Your task to perform on an android device: toggle notifications settings in the gmail app Image 0: 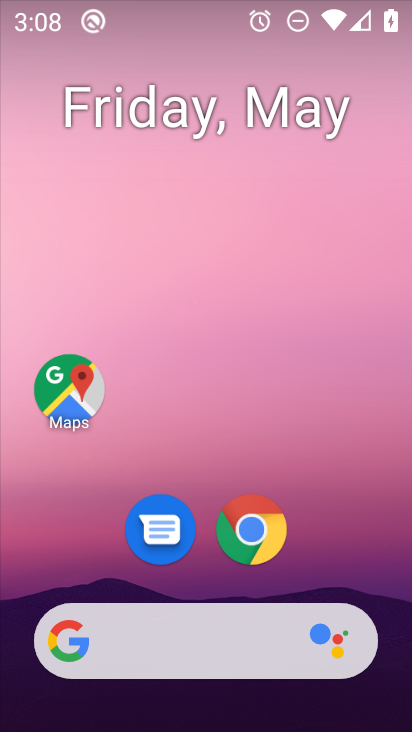
Step 0: drag from (394, 690) to (360, 302)
Your task to perform on an android device: toggle notifications settings in the gmail app Image 1: 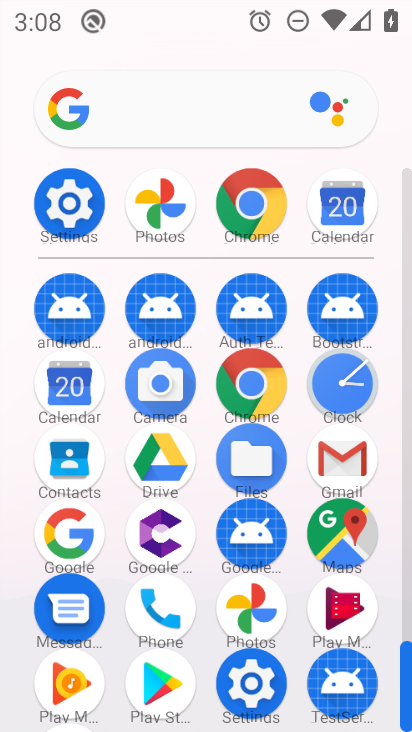
Step 1: click (334, 463)
Your task to perform on an android device: toggle notifications settings in the gmail app Image 2: 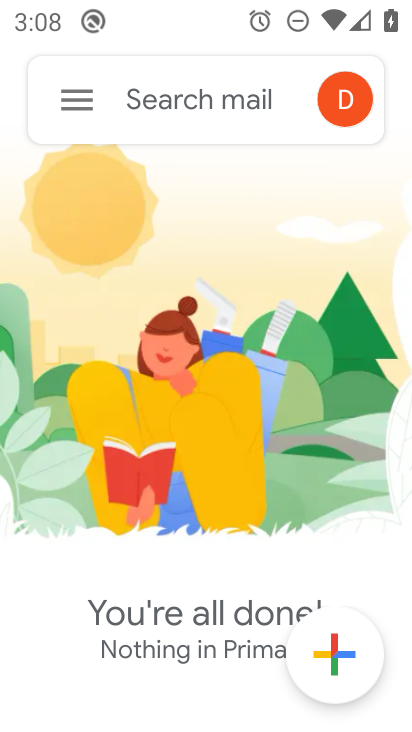
Step 2: click (82, 103)
Your task to perform on an android device: toggle notifications settings in the gmail app Image 3: 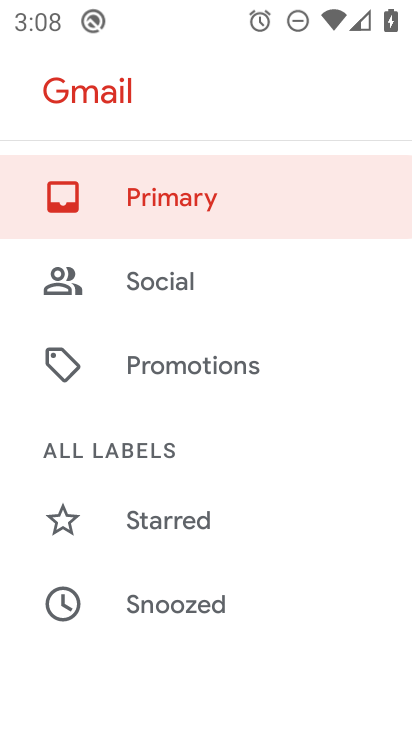
Step 3: drag from (284, 629) to (301, 326)
Your task to perform on an android device: toggle notifications settings in the gmail app Image 4: 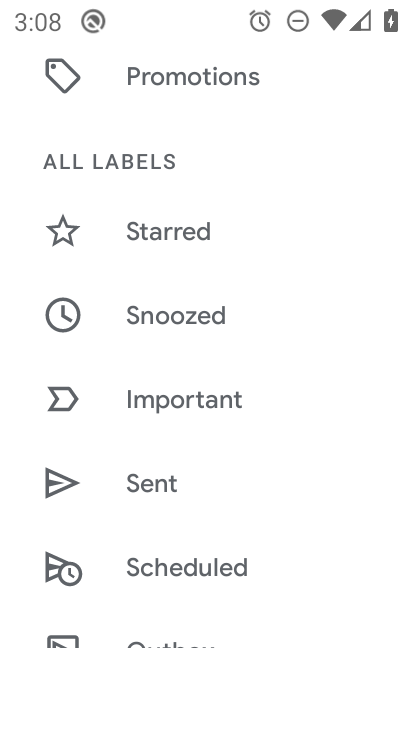
Step 4: drag from (308, 621) to (309, 376)
Your task to perform on an android device: toggle notifications settings in the gmail app Image 5: 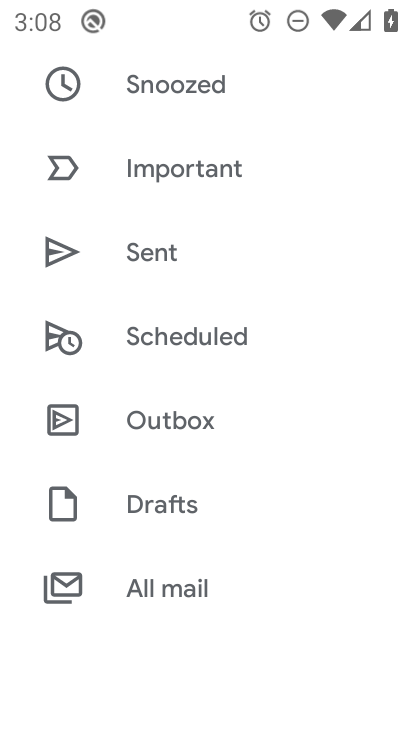
Step 5: drag from (287, 607) to (273, 321)
Your task to perform on an android device: toggle notifications settings in the gmail app Image 6: 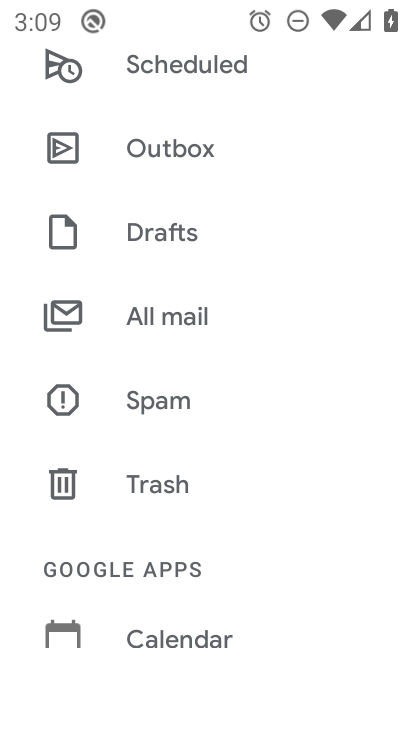
Step 6: drag from (296, 653) to (291, 344)
Your task to perform on an android device: toggle notifications settings in the gmail app Image 7: 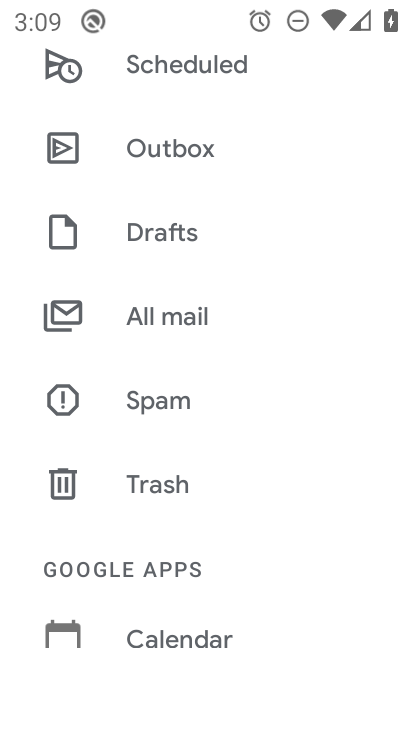
Step 7: drag from (283, 609) to (295, 288)
Your task to perform on an android device: toggle notifications settings in the gmail app Image 8: 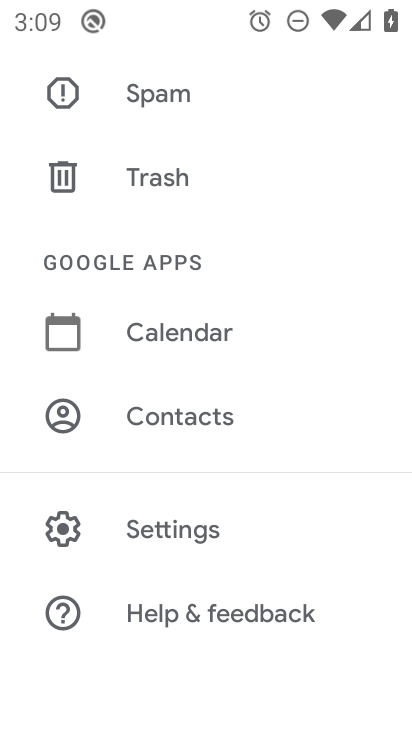
Step 8: click (168, 530)
Your task to perform on an android device: toggle notifications settings in the gmail app Image 9: 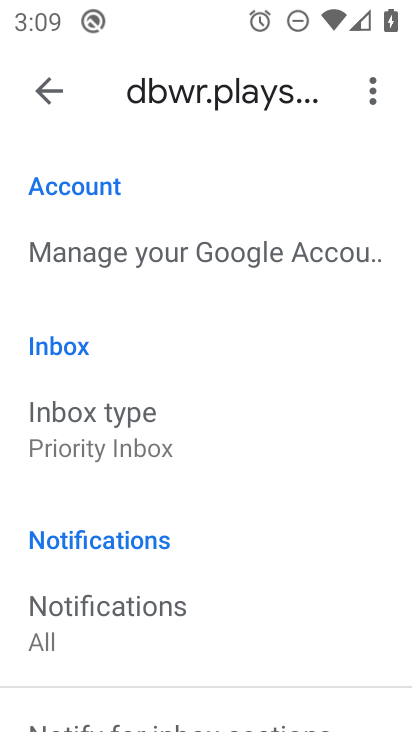
Step 9: click (47, 88)
Your task to perform on an android device: toggle notifications settings in the gmail app Image 10: 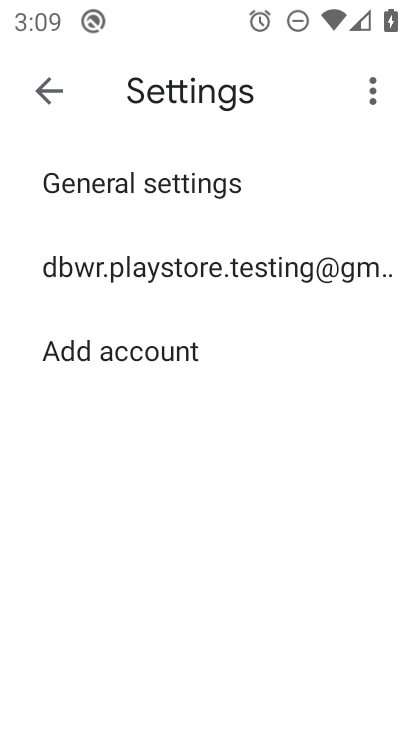
Step 10: click (81, 180)
Your task to perform on an android device: toggle notifications settings in the gmail app Image 11: 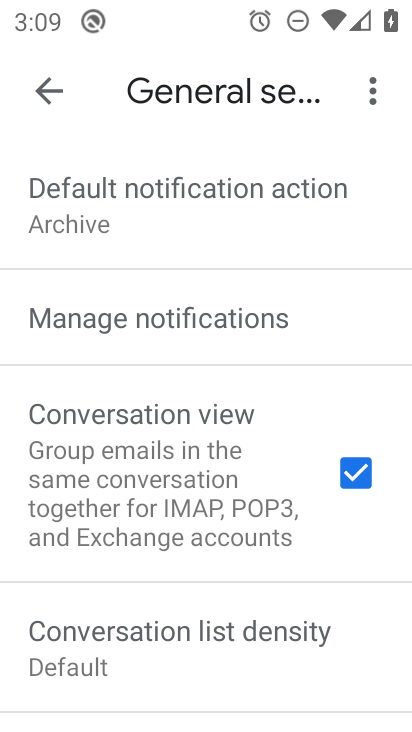
Step 11: click (167, 317)
Your task to perform on an android device: toggle notifications settings in the gmail app Image 12: 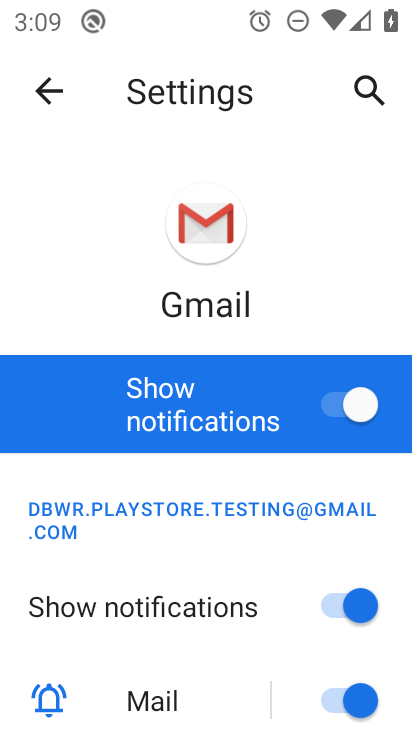
Step 12: drag from (222, 700) to (219, 413)
Your task to perform on an android device: toggle notifications settings in the gmail app Image 13: 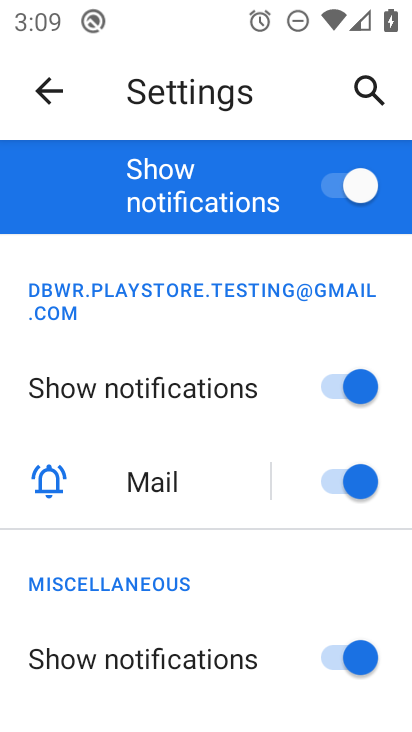
Step 13: drag from (241, 640) to (209, 364)
Your task to perform on an android device: toggle notifications settings in the gmail app Image 14: 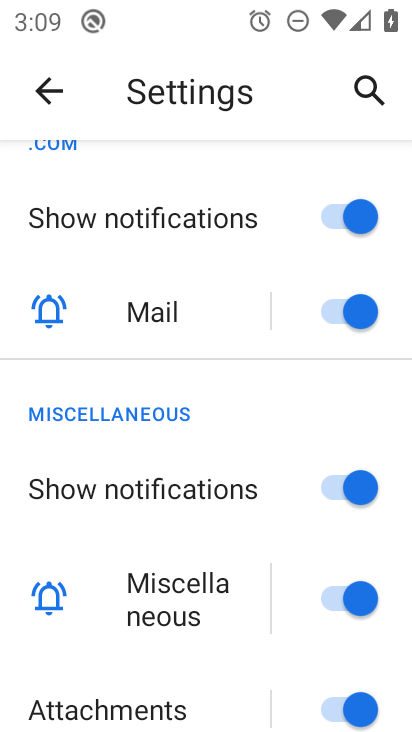
Step 14: drag from (229, 694) to (210, 402)
Your task to perform on an android device: toggle notifications settings in the gmail app Image 15: 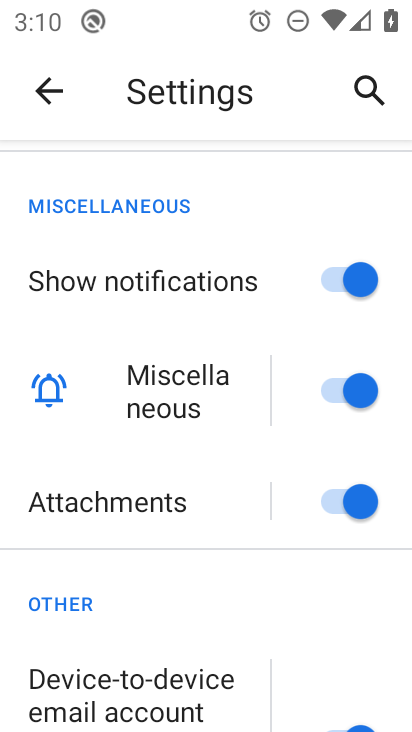
Step 15: click (325, 282)
Your task to perform on an android device: toggle notifications settings in the gmail app Image 16: 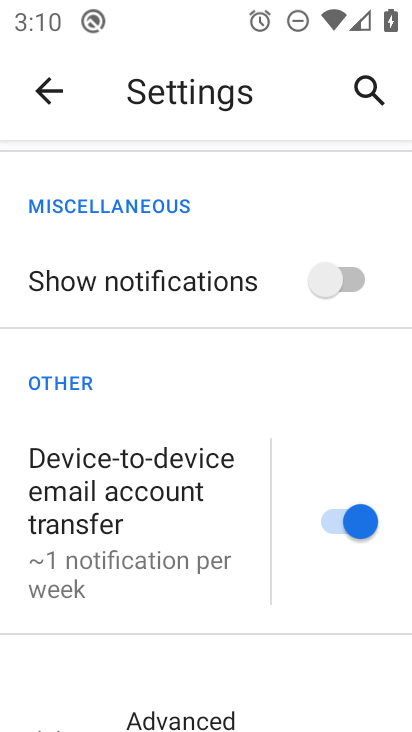
Step 16: task complete